Your task to perform on an android device: Search for sushi restaurants on Maps Image 0: 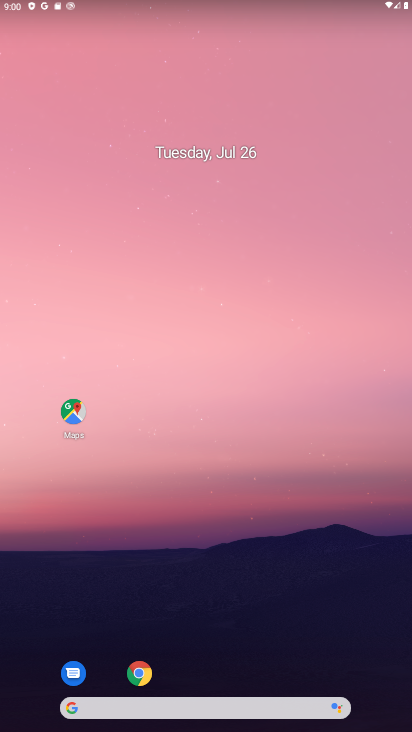
Step 0: drag from (229, 585) to (138, 205)
Your task to perform on an android device: Search for sushi restaurants on Maps Image 1: 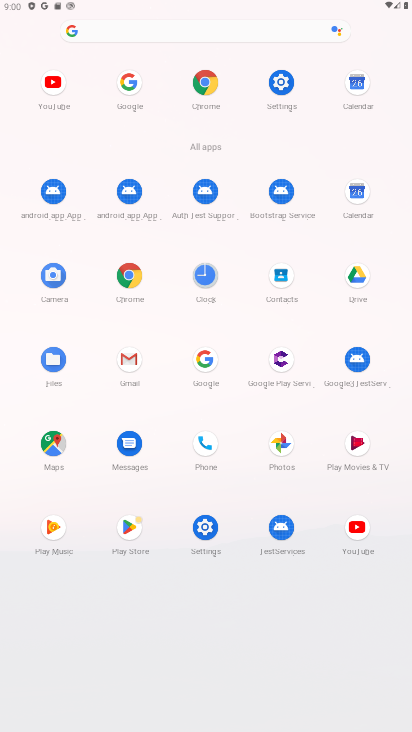
Step 1: click (51, 439)
Your task to perform on an android device: Search for sushi restaurants on Maps Image 2: 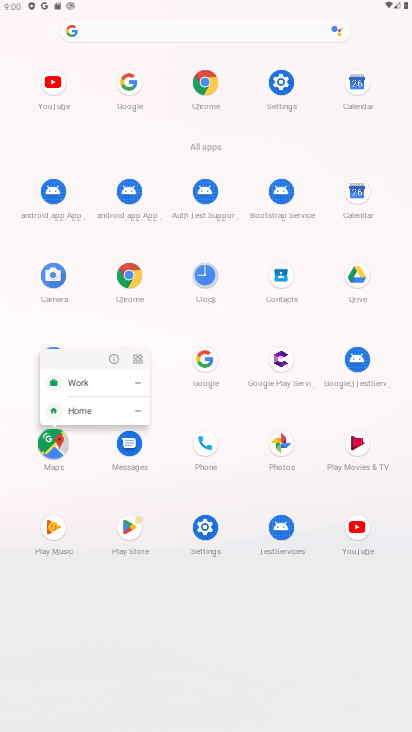
Step 2: click (50, 438)
Your task to perform on an android device: Search for sushi restaurants on Maps Image 3: 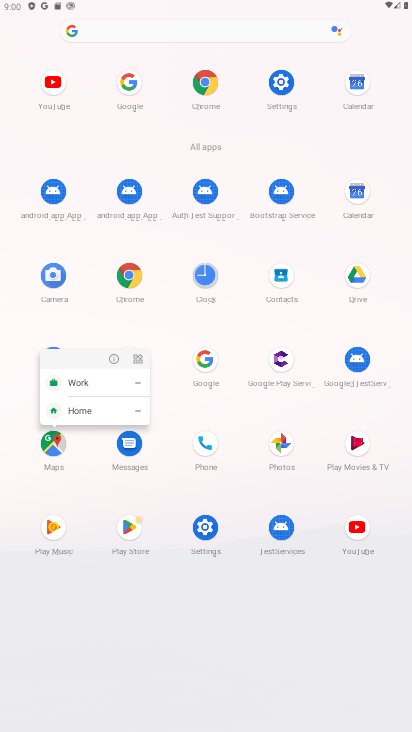
Step 3: click (50, 438)
Your task to perform on an android device: Search for sushi restaurants on Maps Image 4: 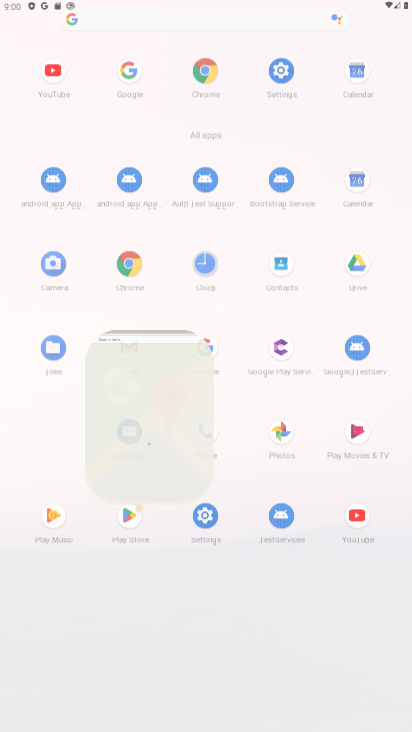
Step 4: click (50, 438)
Your task to perform on an android device: Search for sushi restaurants on Maps Image 5: 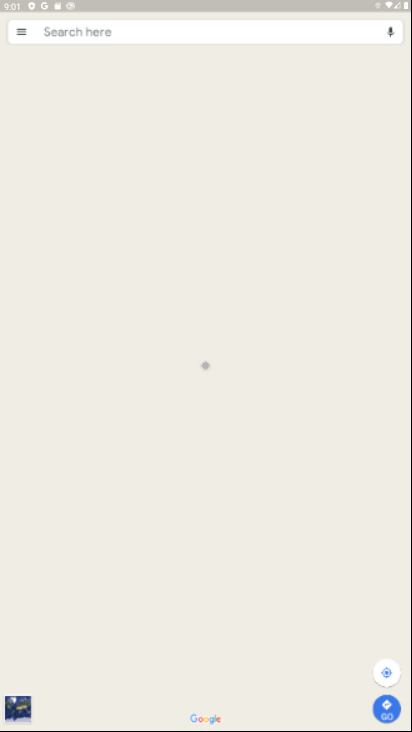
Step 5: click (60, 35)
Your task to perform on an android device: Search for sushi restaurants on Maps Image 6: 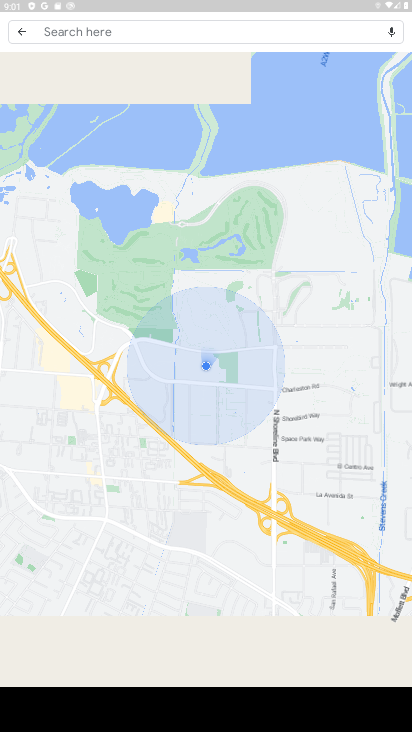
Step 6: click (54, 36)
Your task to perform on an android device: Search for sushi restaurants on Maps Image 7: 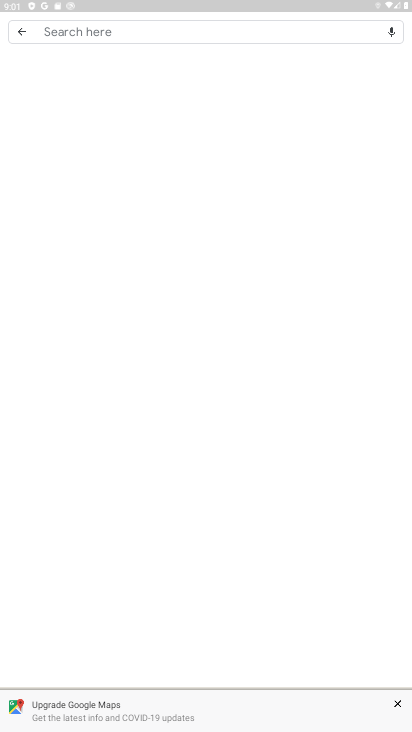
Step 7: click (54, 36)
Your task to perform on an android device: Search for sushi restaurants on Maps Image 8: 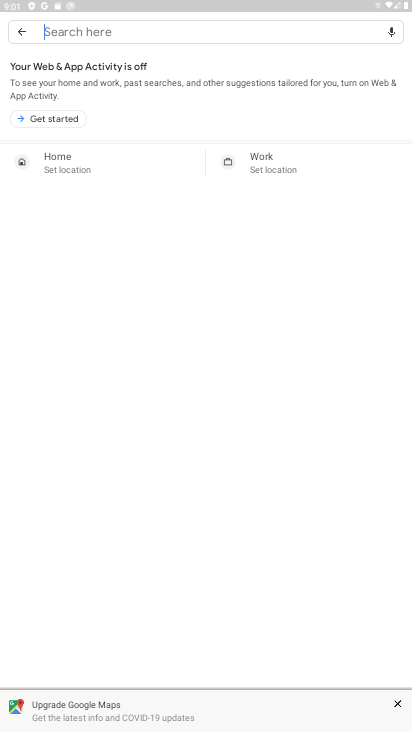
Step 8: click (54, 36)
Your task to perform on an android device: Search for sushi restaurants on Maps Image 9: 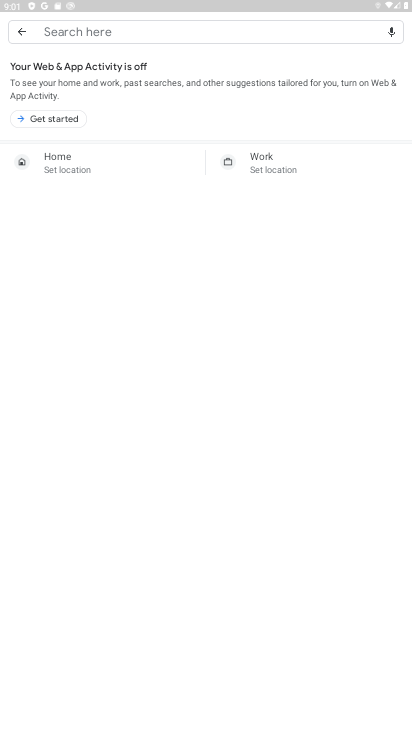
Step 9: click (54, 36)
Your task to perform on an android device: Search for sushi restaurants on Maps Image 10: 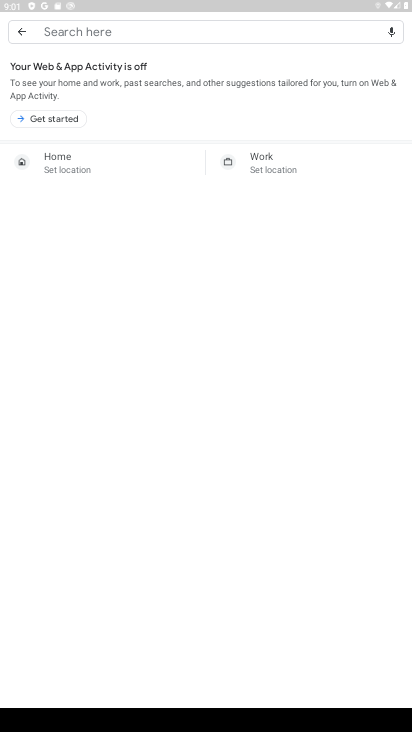
Step 10: click (54, 36)
Your task to perform on an android device: Search for sushi restaurants on Maps Image 11: 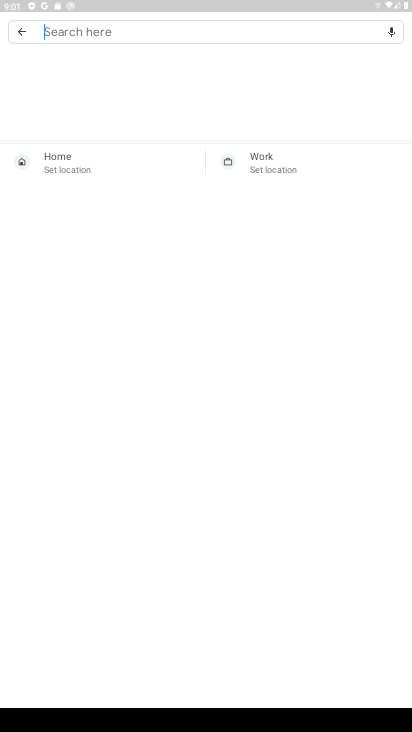
Step 11: click (62, 29)
Your task to perform on an android device: Search for sushi restaurants on Maps Image 12: 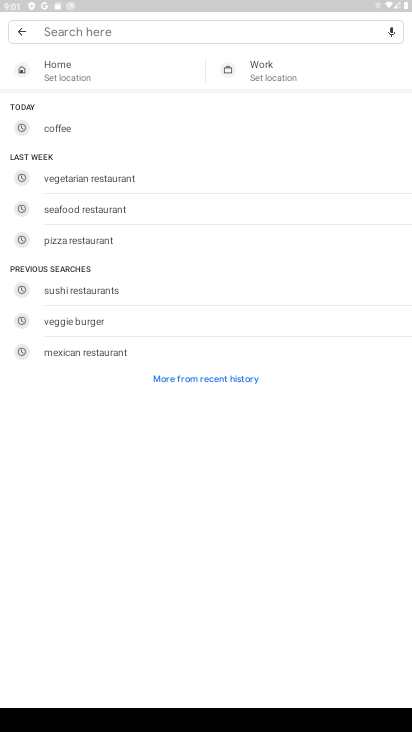
Step 12: click (62, 29)
Your task to perform on an android device: Search for sushi restaurants on Maps Image 13: 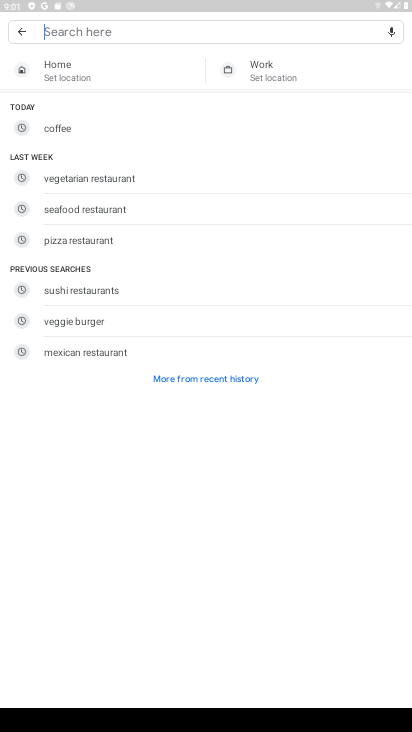
Step 13: click (92, 286)
Your task to perform on an android device: Search for sushi restaurants on Maps Image 14: 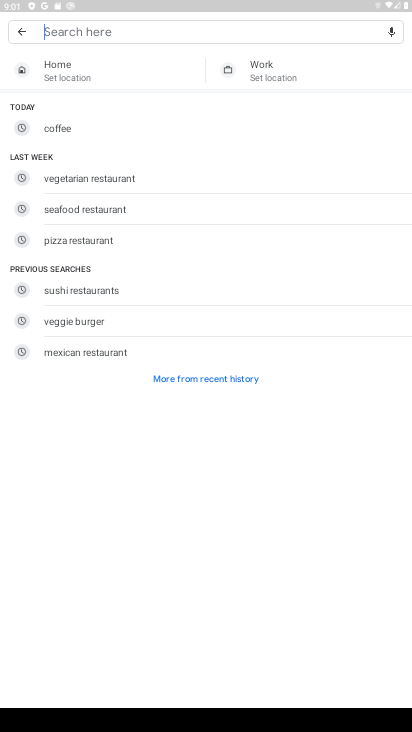
Step 14: click (92, 286)
Your task to perform on an android device: Search for sushi restaurants on Maps Image 15: 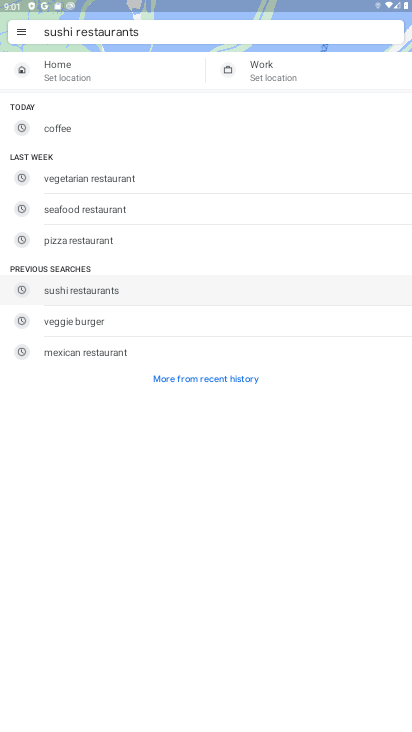
Step 15: click (95, 281)
Your task to perform on an android device: Search for sushi restaurants on Maps Image 16: 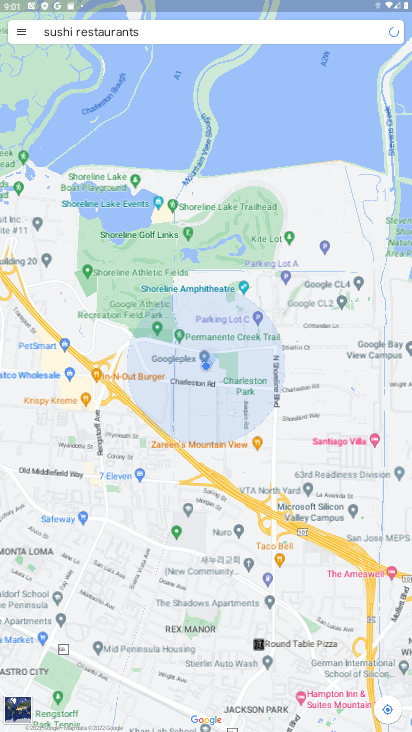
Step 16: task complete